Your task to perform on an android device: Go to Reddit.com Image 0: 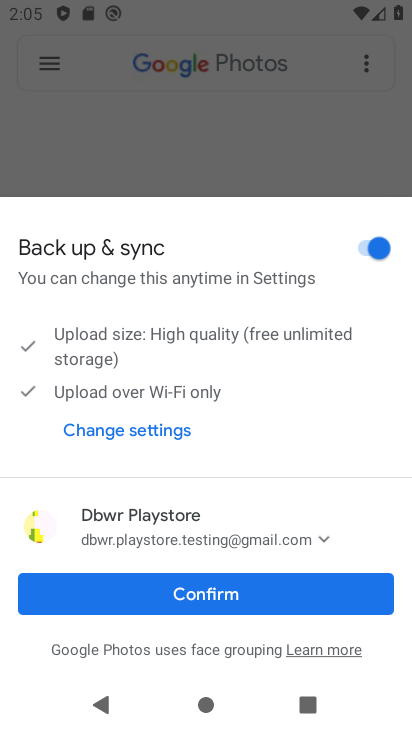
Step 0: press home button
Your task to perform on an android device: Go to Reddit.com Image 1: 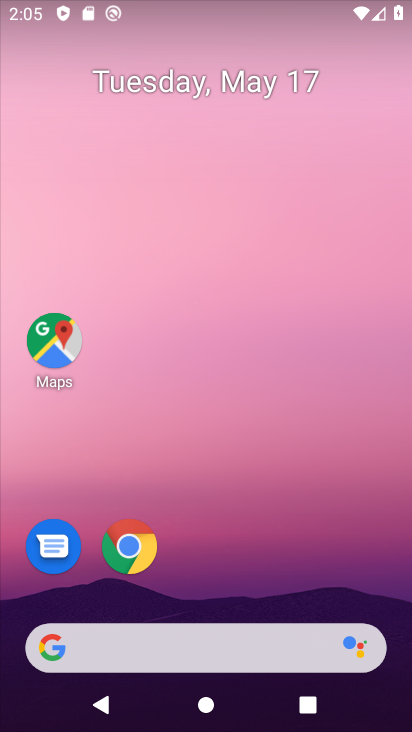
Step 1: click (123, 558)
Your task to perform on an android device: Go to Reddit.com Image 2: 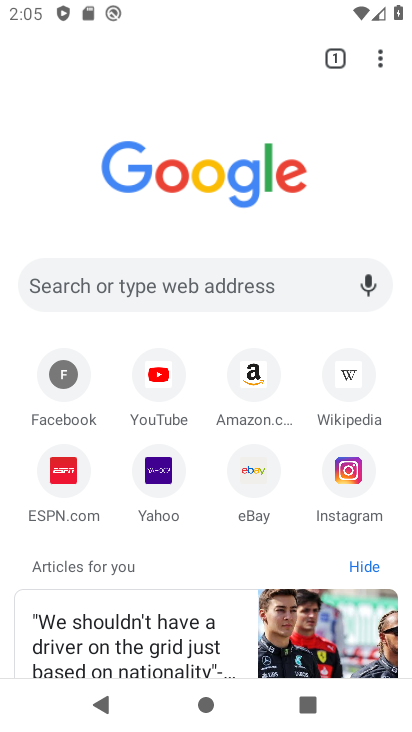
Step 2: click (188, 301)
Your task to perform on an android device: Go to Reddit.com Image 3: 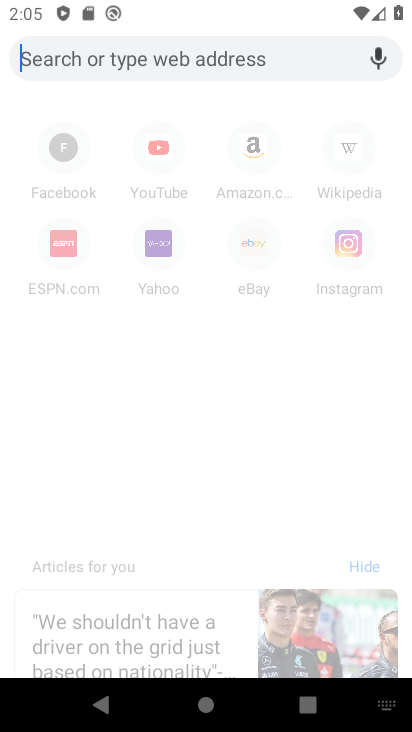
Step 3: type "reddit"
Your task to perform on an android device: Go to Reddit.com Image 4: 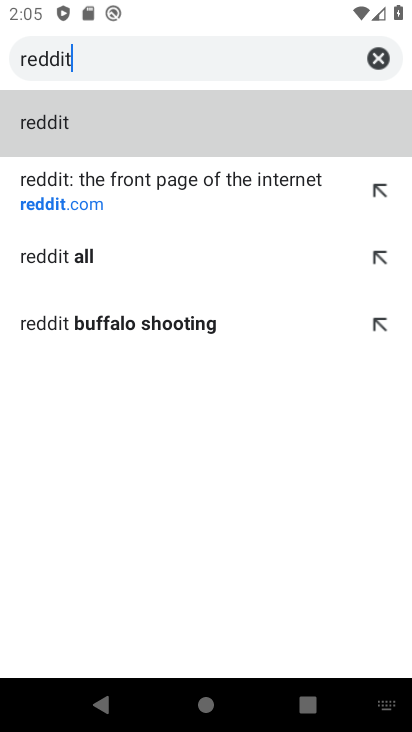
Step 4: click (290, 212)
Your task to perform on an android device: Go to Reddit.com Image 5: 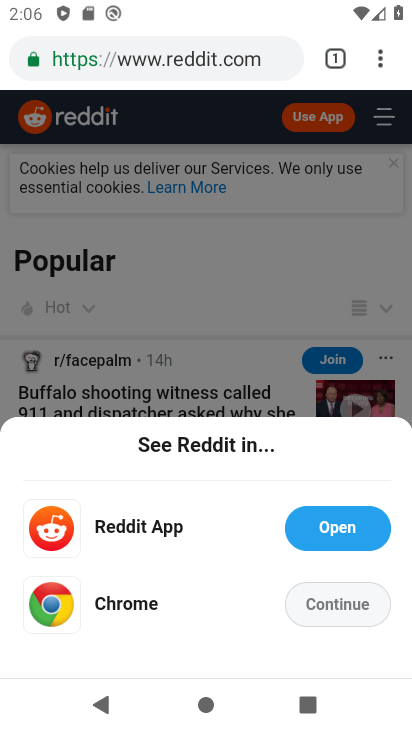
Step 5: click (327, 603)
Your task to perform on an android device: Go to Reddit.com Image 6: 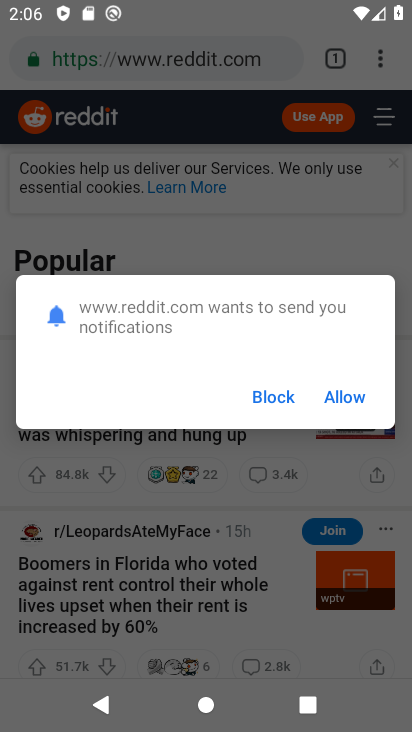
Step 6: task complete